Your task to perform on an android device: Open Google Chrome and click the shortcut for Amazon.com Image 0: 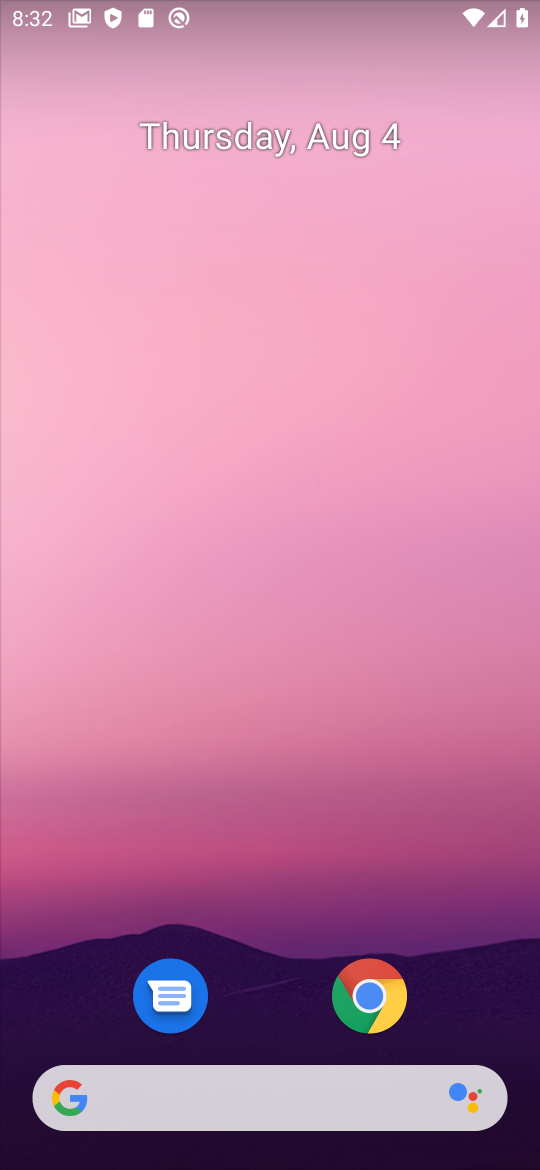
Step 0: click (390, 991)
Your task to perform on an android device: Open Google Chrome and click the shortcut for Amazon.com Image 1: 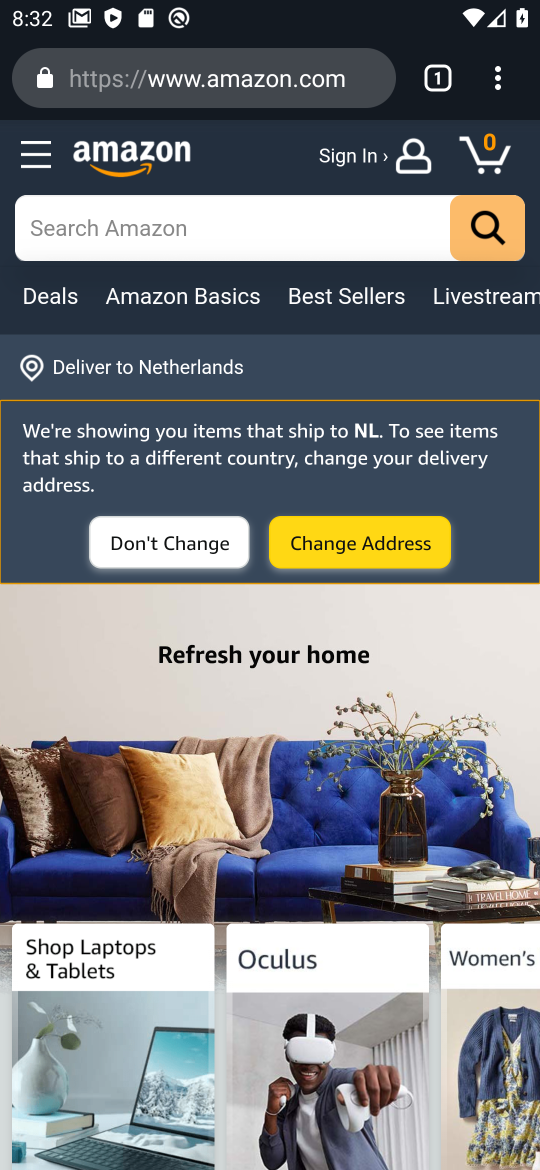
Step 1: task complete